Your task to perform on an android device: set the timer Image 0: 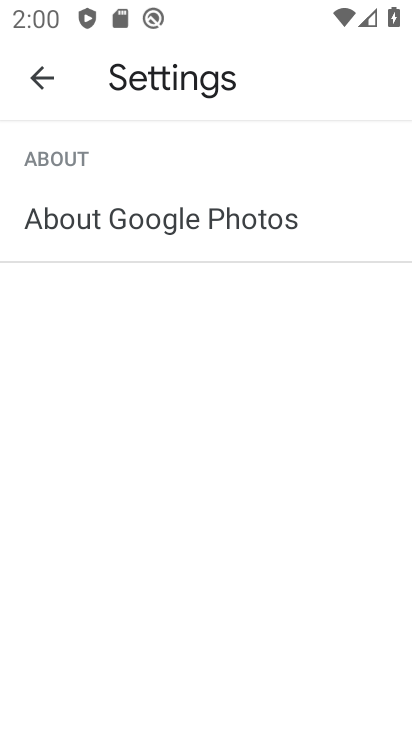
Step 0: press home button
Your task to perform on an android device: set the timer Image 1: 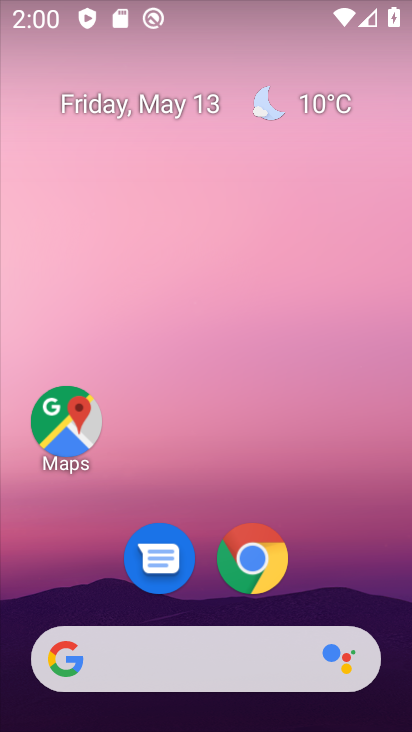
Step 1: drag from (198, 604) to (217, 258)
Your task to perform on an android device: set the timer Image 2: 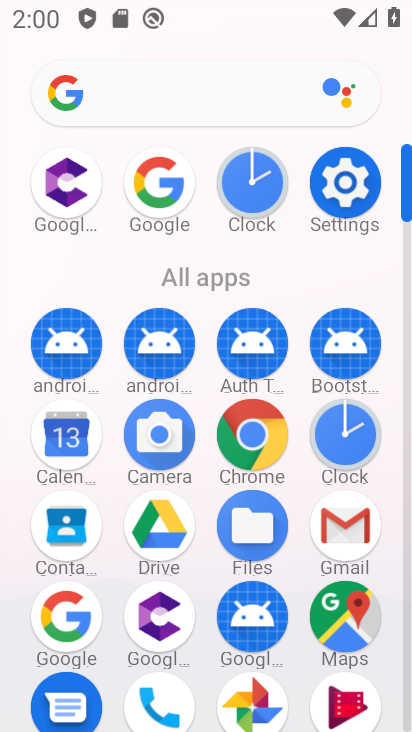
Step 2: click (253, 204)
Your task to perform on an android device: set the timer Image 3: 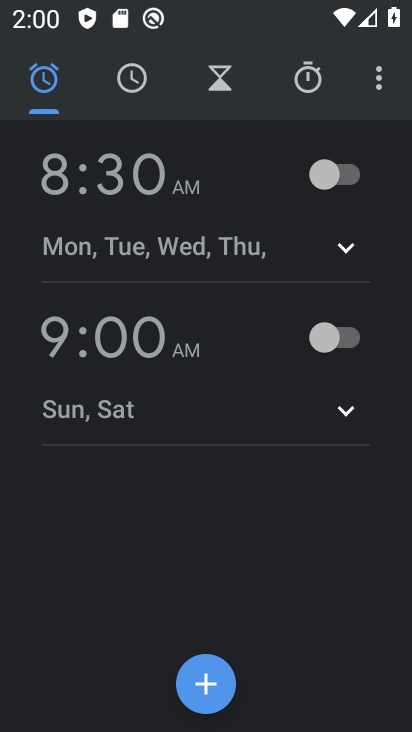
Step 3: click (219, 67)
Your task to perform on an android device: set the timer Image 4: 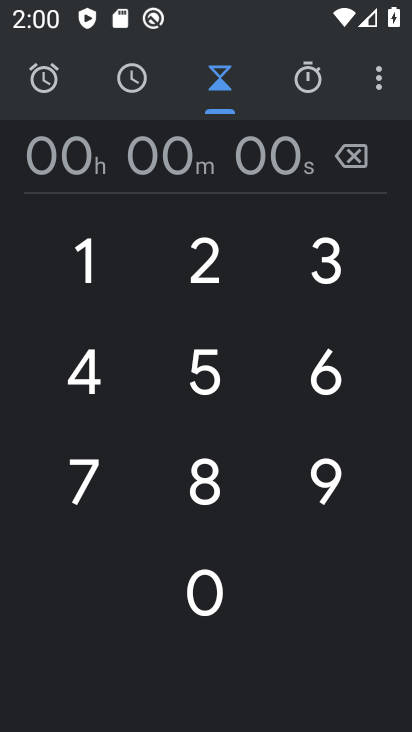
Step 4: click (266, 155)
Your task to perform on an android device: set the timer Image 5: 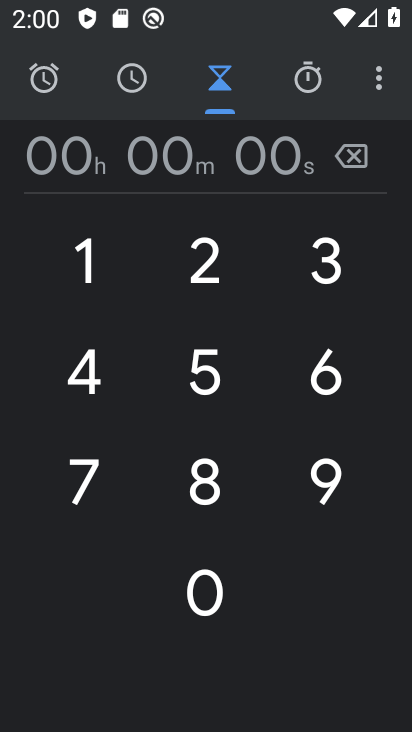
Step 5: type "43"
Your task to perform on an android device: set the timer Image 6: 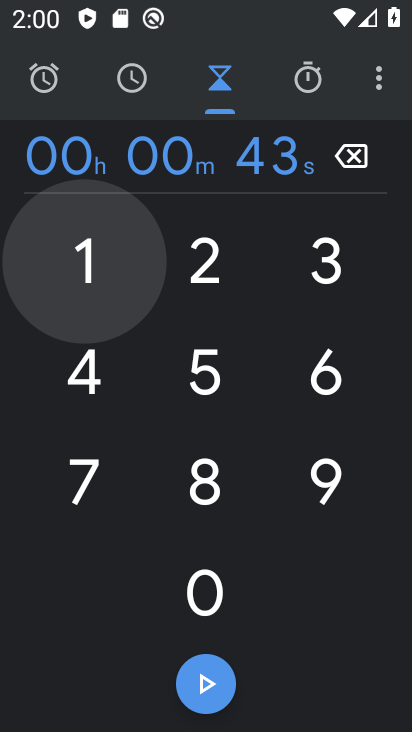
Step 6: click (220, 675)
Your task to perform on an android device: set the timer Image 7: 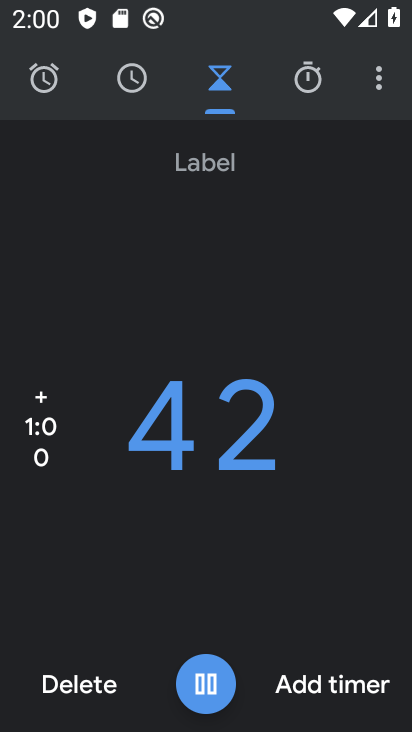
Step 7: task complete